Your task to perform on an android device: Show me productivity apps on the Play Store Image 0: 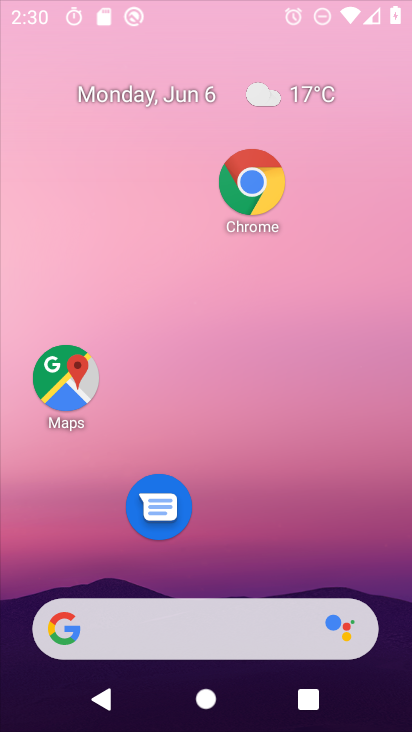
Step 0: drag from (236, 649) to (113, 135)
Your task to perform on an android device: Show me productivity apps on the Play Store Image 1: 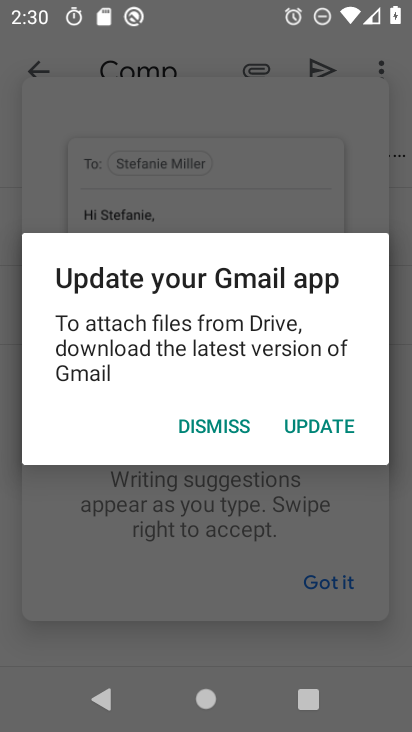
Step 1: press home button
Your task to perform on an android device: Show me productivity apps on the Play Store Image 2: 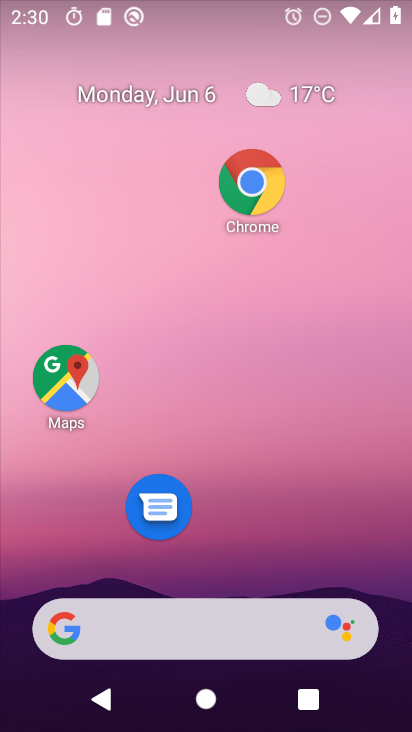
Step 2: drag from (228, 616) to (212, 55)
Your task to perform on an android device: Show me productivity apps on the Play Store Image 3: 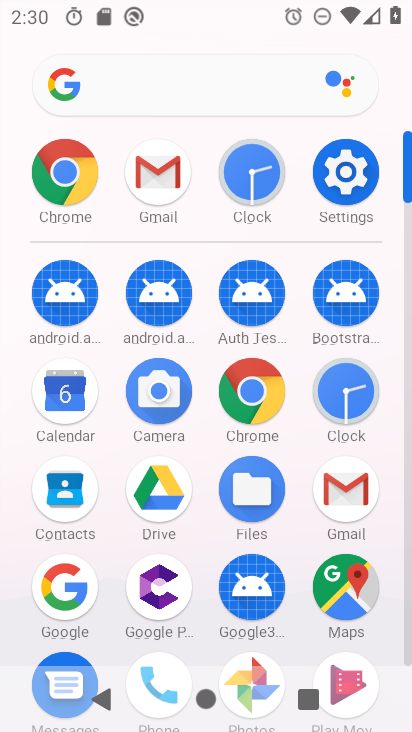
Step 3: drag from (214, 565) to (214, 411)
Your task to perform on an android device: Show me productivity apps on the Play Store Image 4: 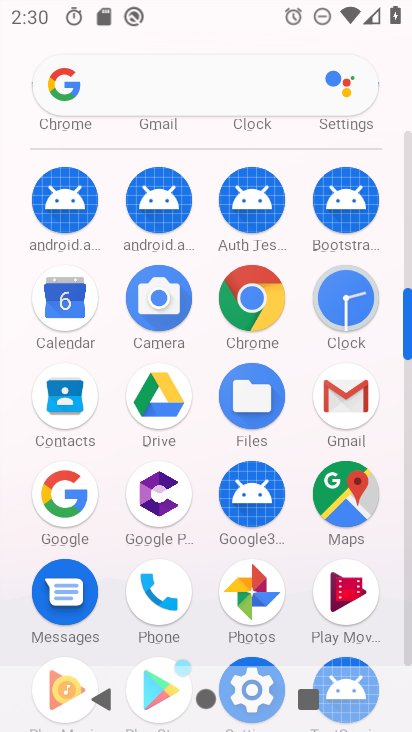
Step 4: click (162, 656)
Your task to perform on an android device: Show me productivity apps on the Play Store Image 5: 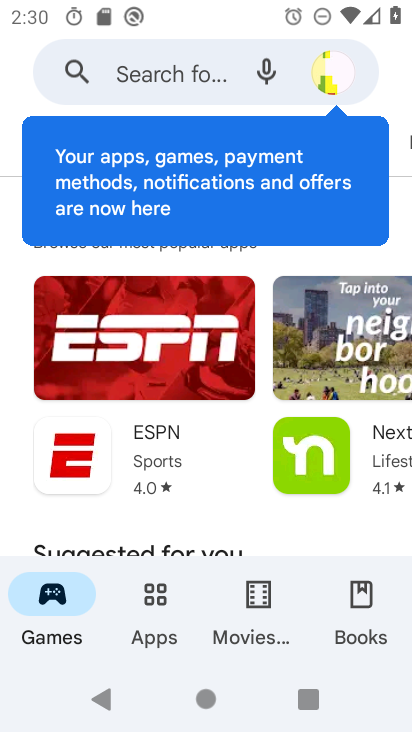
Step 5: click (179, 78)
Your task to perform on an android device: Show me productivity apps on the Play Store Image 6: 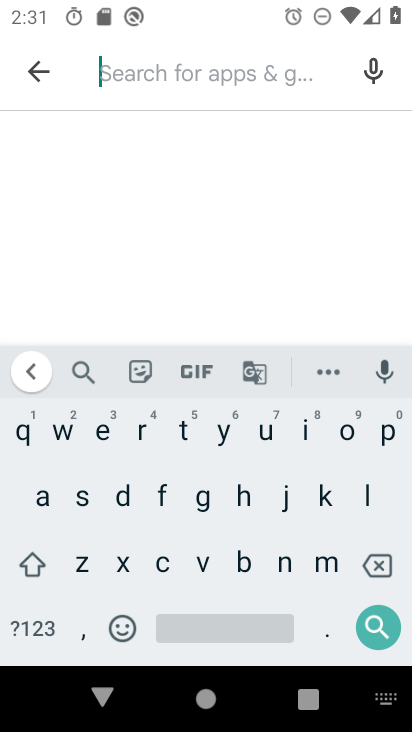
Step 6: click (381, 437)
Your task to perform on an android device: Show me productivity apps on the Play Store Image 7: 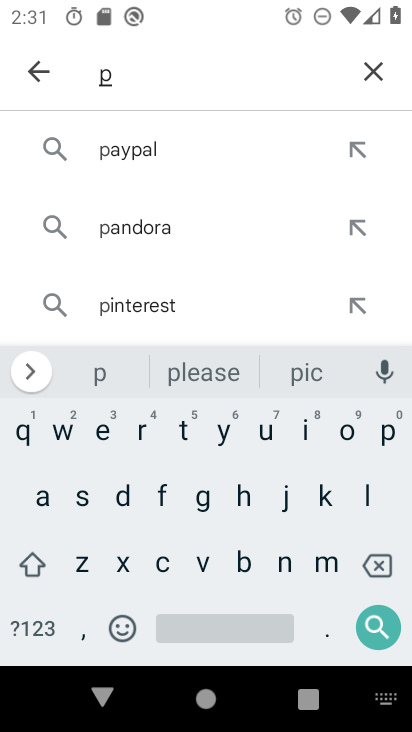
Step 7: click (148, 429)
Your task to perform on an android device: Show me productivity apps on the Play Store Image 8: 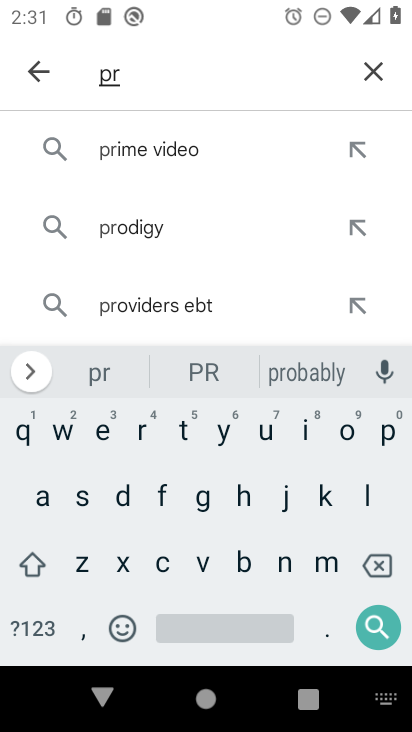
Step 8: click (342, 426)
Your task to perform on an android device: Show me productivity apps on the Play Store Image 9: 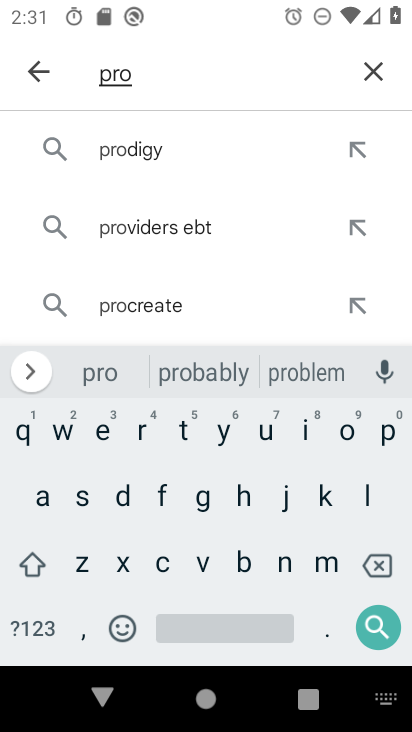
Step 9: click (129, 494)
Your task to perform on an android device: Show me productivity apps on the Play Store Image 10: 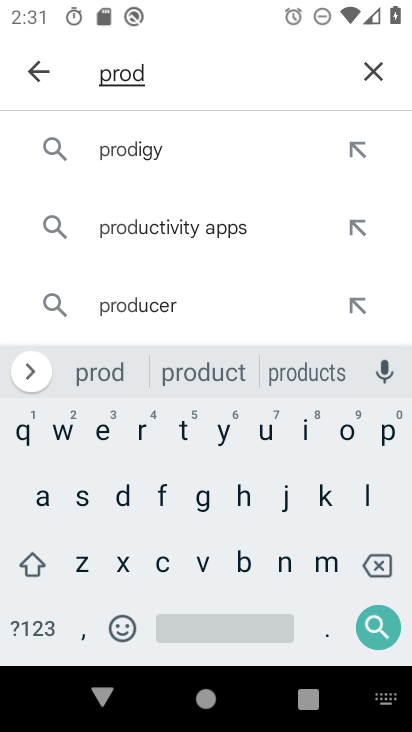
Step 10: click (269, 436)
Your task to perform on an android device: Show me productivity apps on the Play Store Image 11: 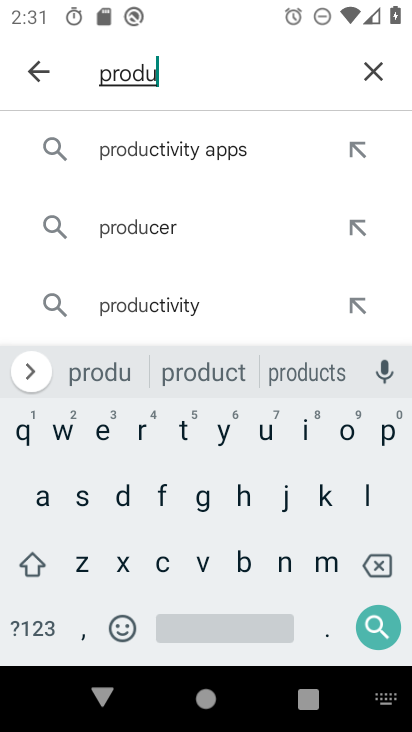
Step 11: click (148, 161)
Your task to perform on an android device: Show me productivity apps on the Play Store Image 12: 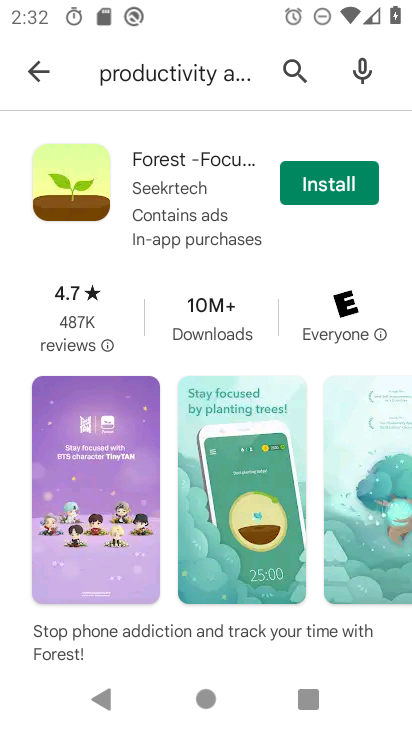
Step 12: task complete